Your task to perform on an android device: set an alarm Image 0: 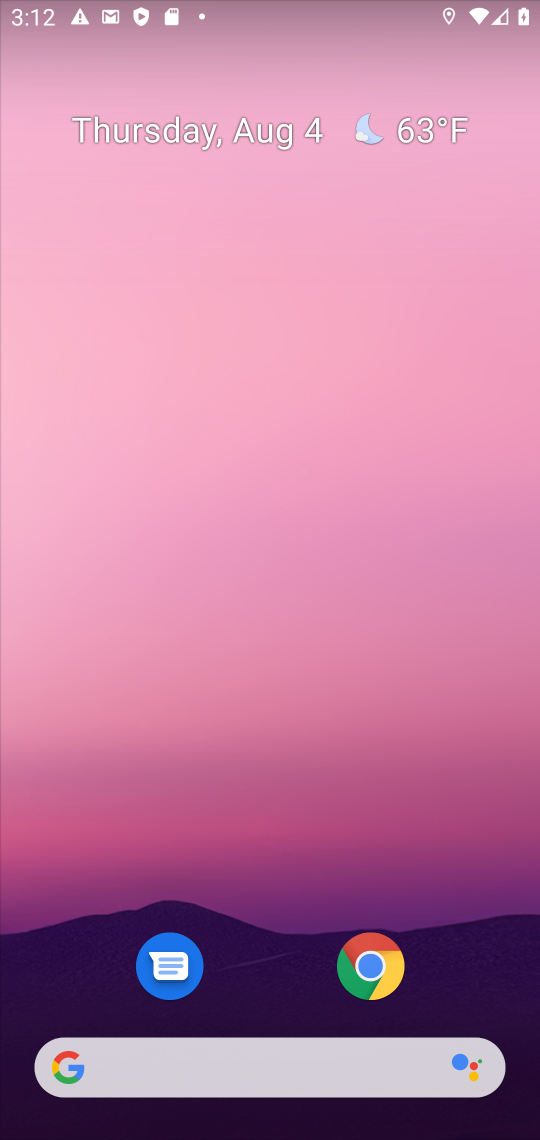
Step 0: drag from (249, 1019) to (266, 414)
Your task to perform on an android device: set an alarm Image 1: 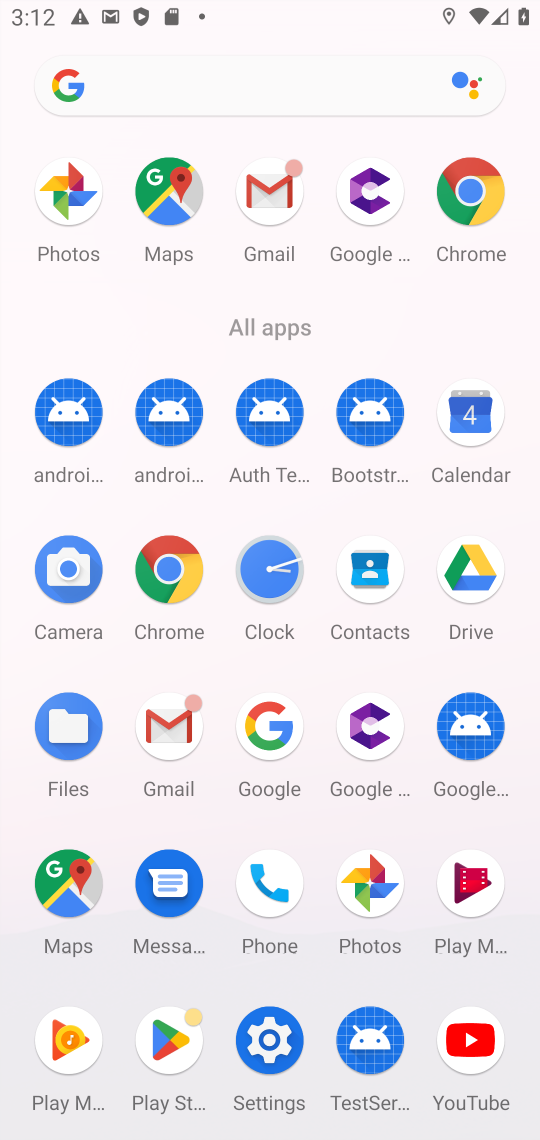
Step 1: click (266, 582)
Your task to perform on an android device: set an alarm Image 2: 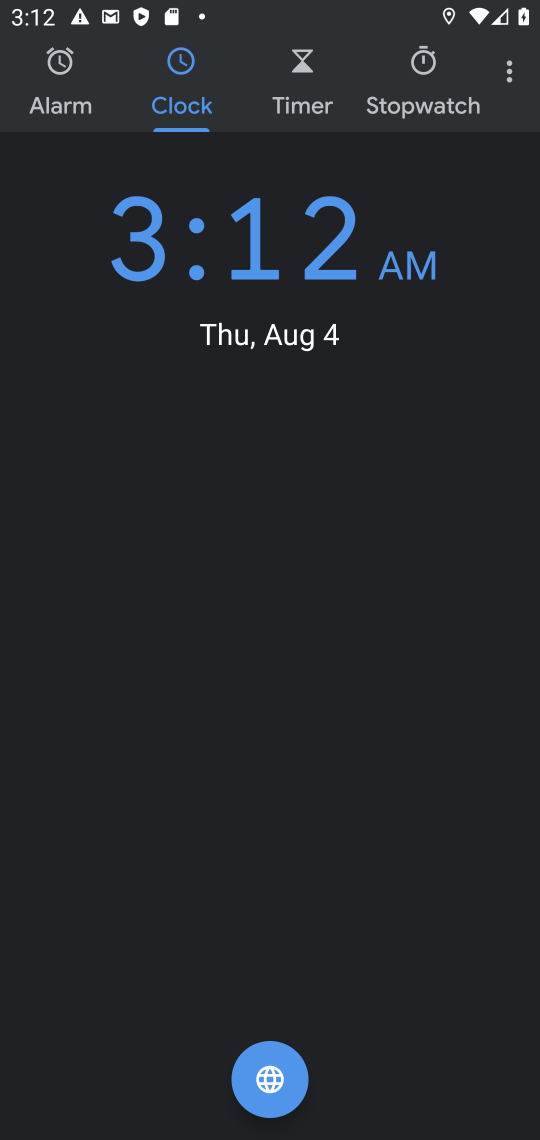
Step 2: click (71, 60)
Your task to perform on an android device: set an alarm Image 3: 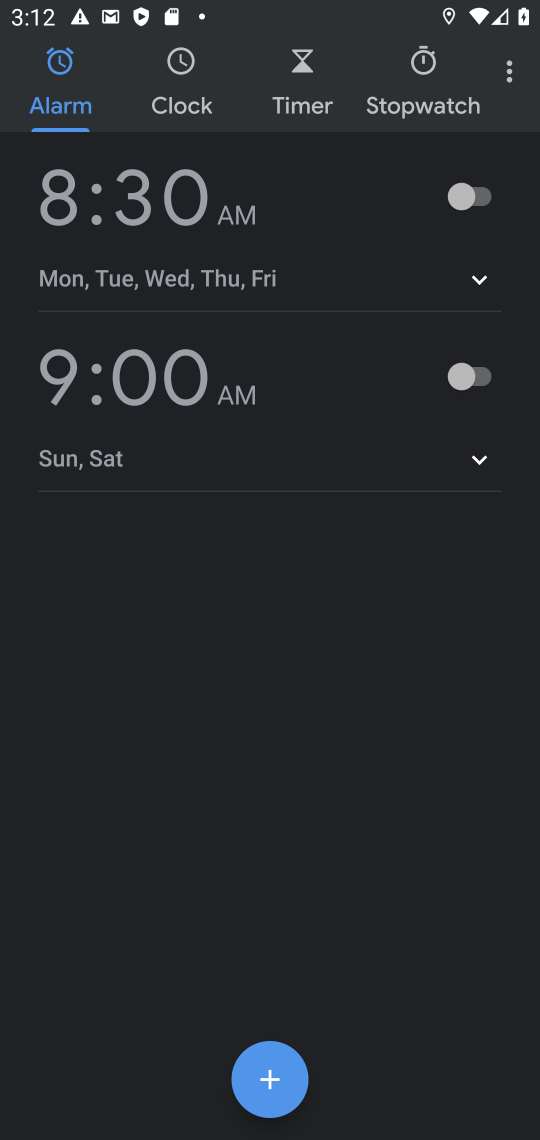
Step 3: click (461, 207)
Your task to perform on an android device: set an alarm Image 4: 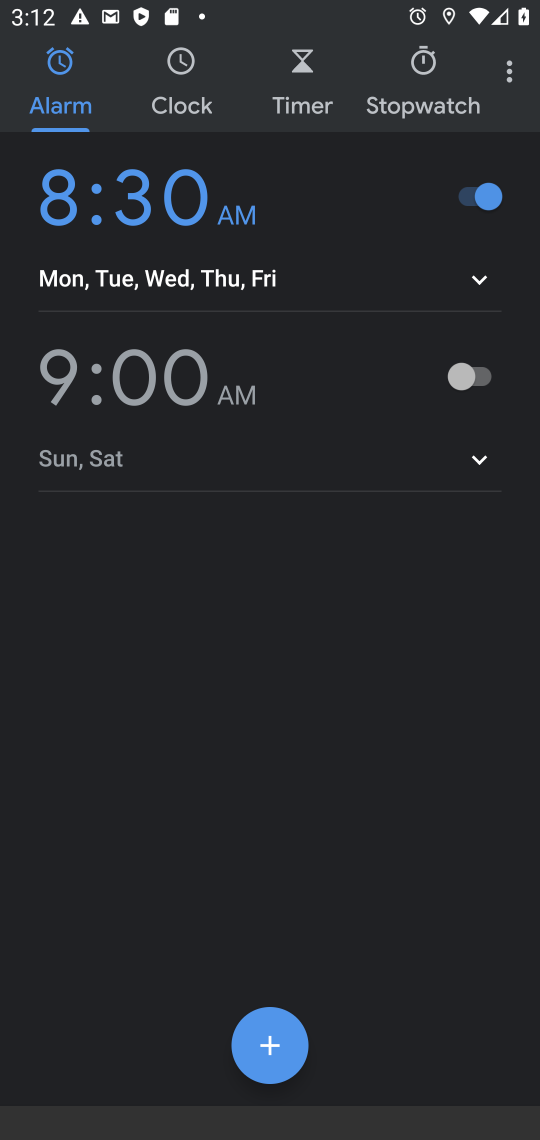
Step 4: task complete